Your task to perform on an android device: move an email to a new category in the gmail app Image 0: 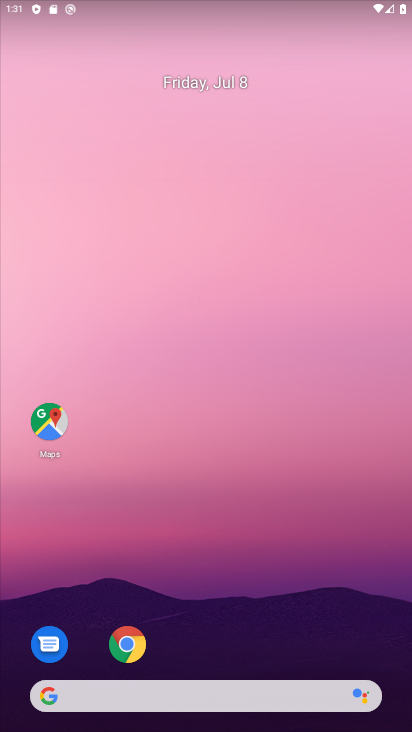
Step 0: drag from (256, 651) to (271, 132)
Your task to perform on an android device: move an email to a new category in the gmail app Image 1: 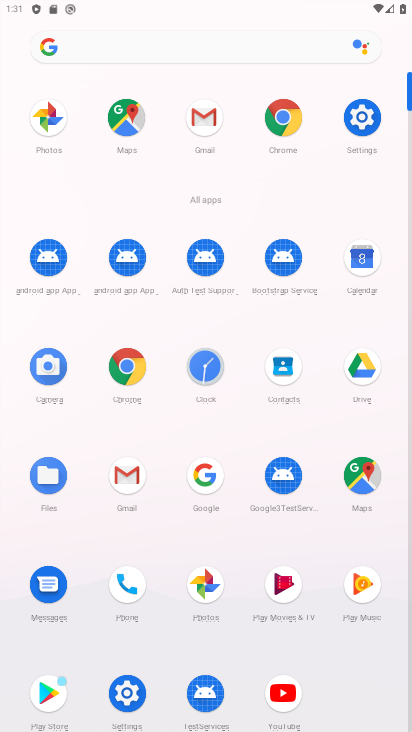
Step 1: click (207, 114)
Your task to perform on an android device: move an email to a new category in the gmail app Image 2: 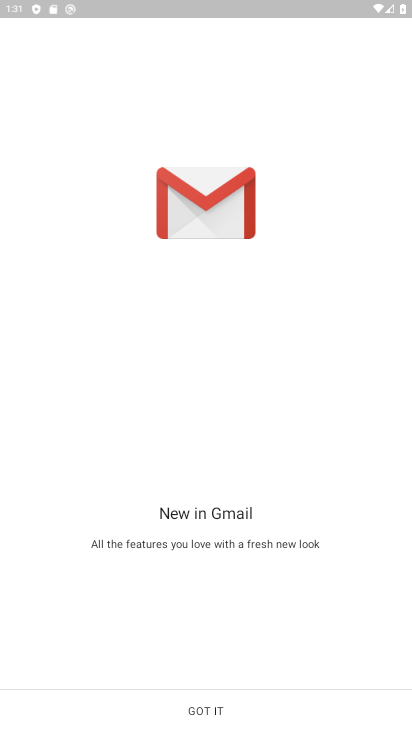
Step 2: click (211, 708)
Your task to perform on an android device: move an email to a new category in the gmail app Image 3: 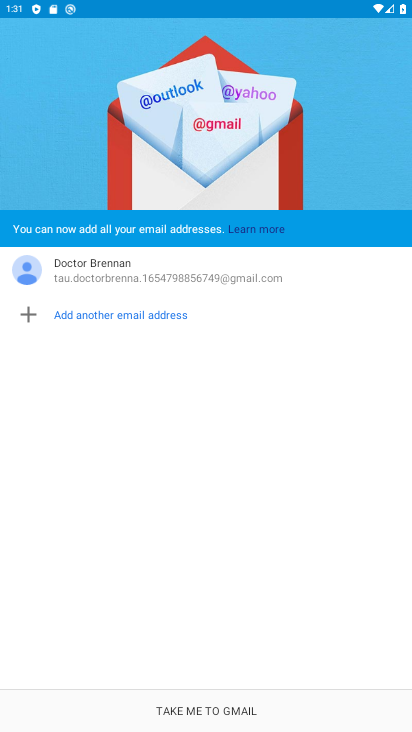
Step 3: click (211, 702)
Your task to perform on an android device: move an email to a new category in the gmail app Image 4: 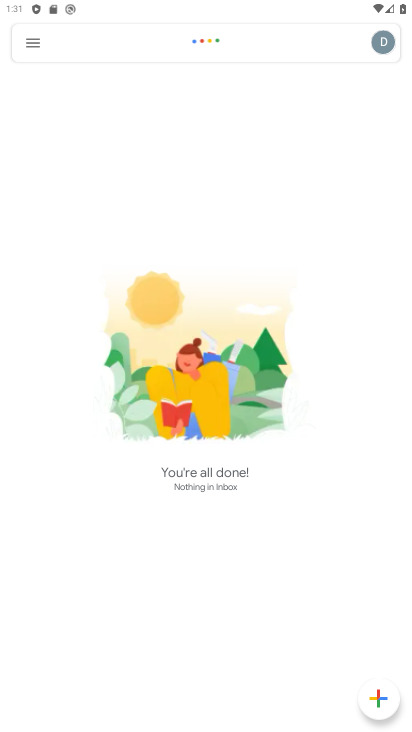
Step 4: click (31, 43)
Your task to perform on an android device: move an email to a new category in the gmail app Image 5: 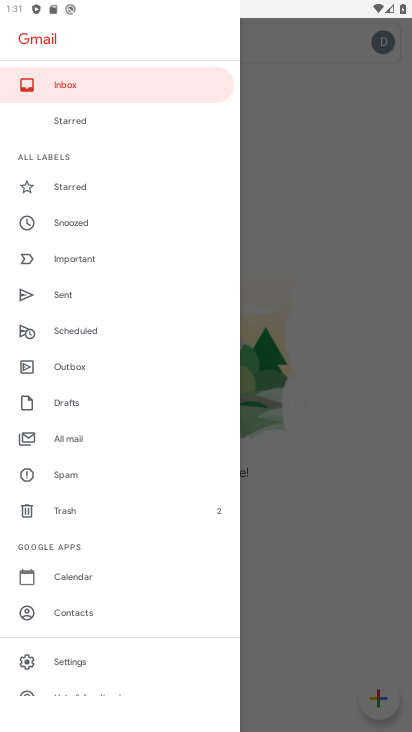
Step 5: click (76, 449)
Your task to perform on an android device: move an email to a new category in the gmail app Image 6: 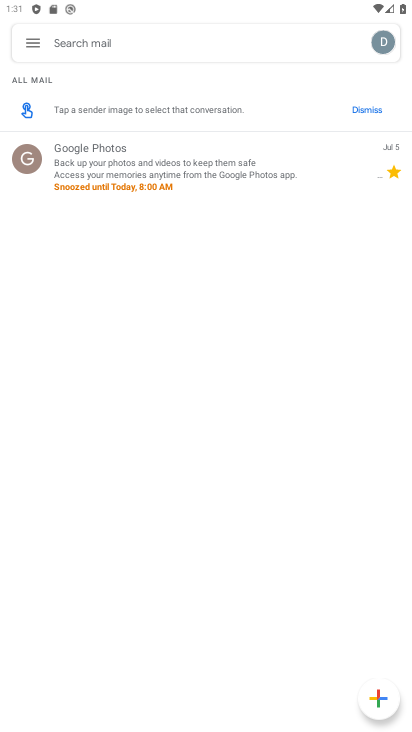
Step 6: click (143, 173)
Your task to perform on an android device: move an email to a new category in the gmail app Image 7: 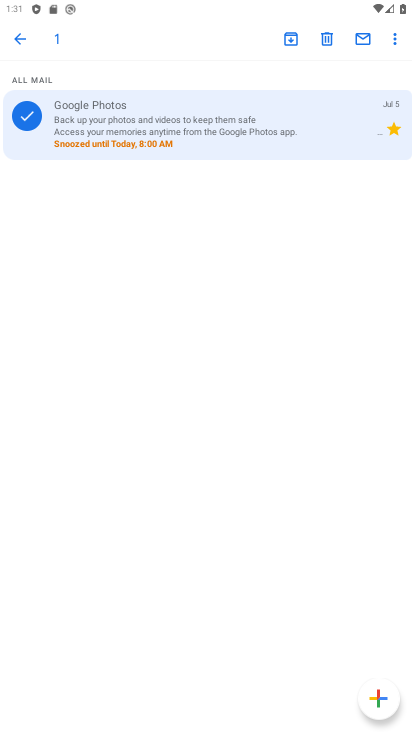
Step 7: click (391, 31)
Your task to perform on an android device: move an email to a new category in the gmail app Image 8: 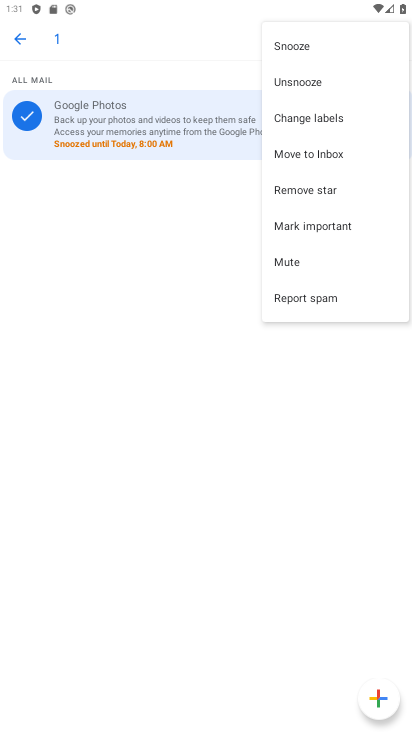
Step 8: click (294, 222)
Your task to perform on an android device: move an email to a new category in the gmail app Image 9: 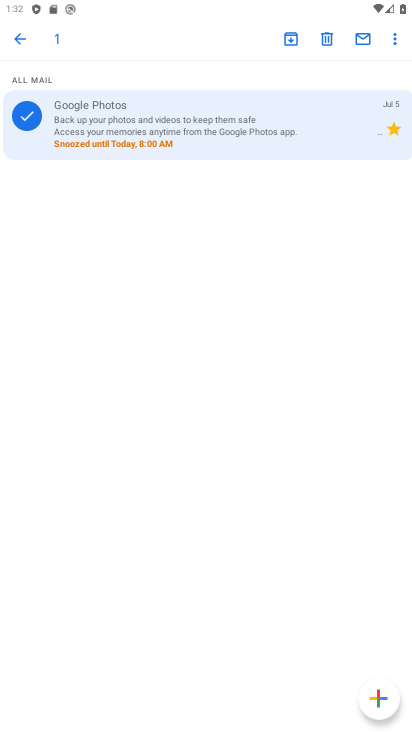
Step 9: task complete